Your task to perform on an android device: Open the calendar app, open the side menu, and click the "Day" option Image 0: 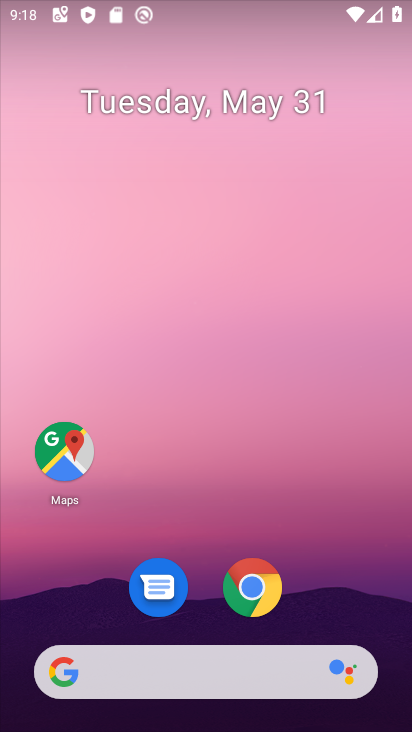
Step 0: drag from (227, 544) to (205, 101)
Your task to perform on an android device: Open the calendar app, open the side menu, and click the "Day" option Image 1: 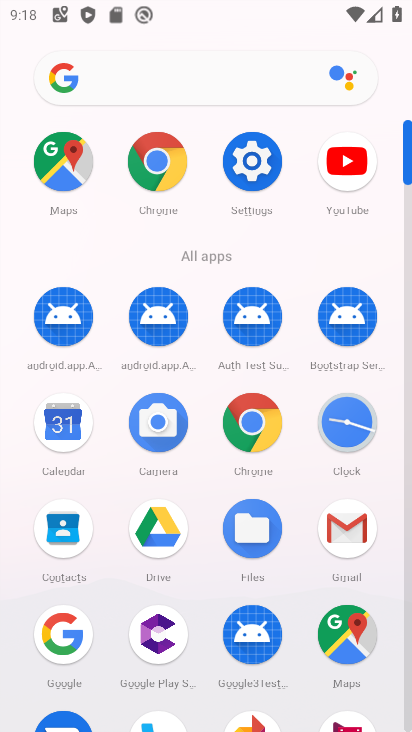
Step 1: click (63, 426)
Your task to perform on an android device: Open the calendar app, open the side menu, and click the "Day" option Image 2: 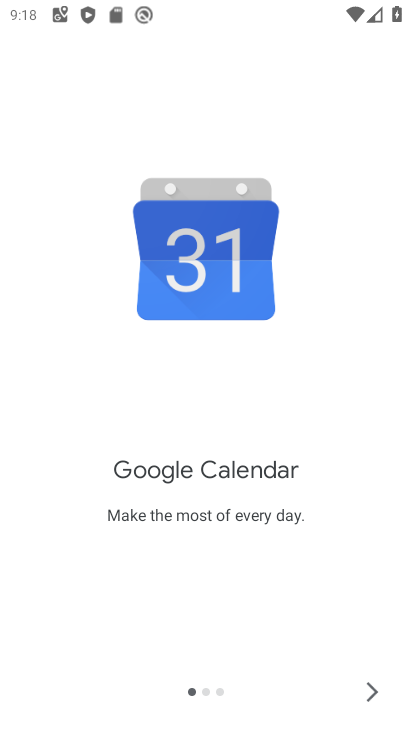
Step 2: click (371, 681)
Your task to perform on an android device: Open the calendar app, open the side menu, and click the "Day" option Image 3: 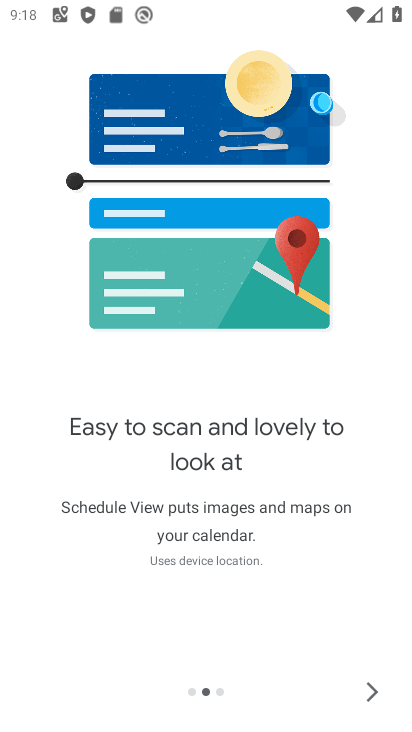
Step 3: click (371, 681)
Your task to perform on an android device: Open the calendar app, open the side menu, and click the "Day" option Image 4: 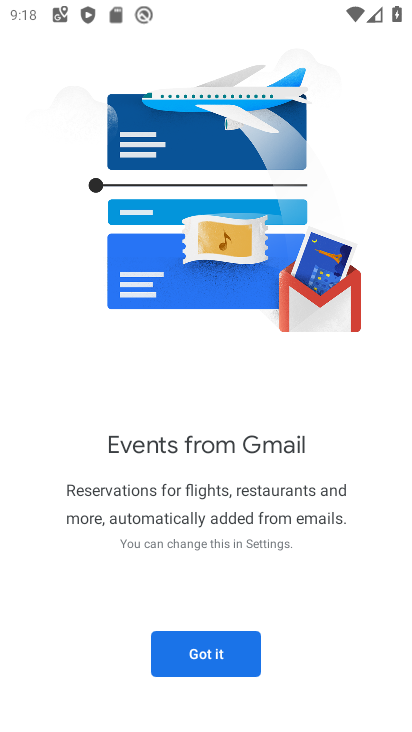
Step 4: click (228, 641)
Your task to perform on an android device: Open the calendar app, open the side menu, and click the "Day" option Image 5: 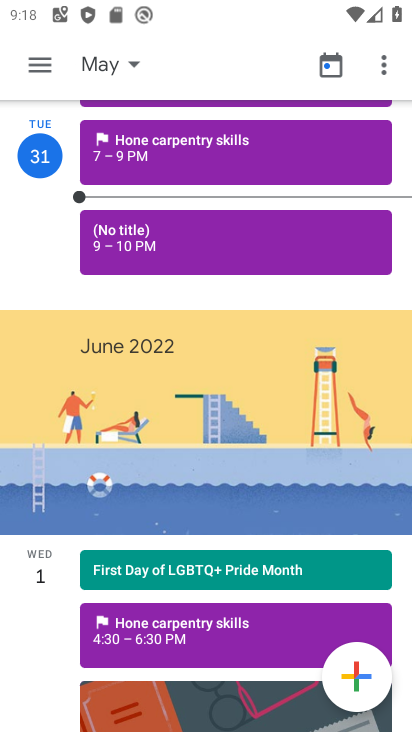
Step 5: click (38, 61)
Your task to perform on an android device: Open the calendar app, open the side menu, and click the "Day" option Image 6: 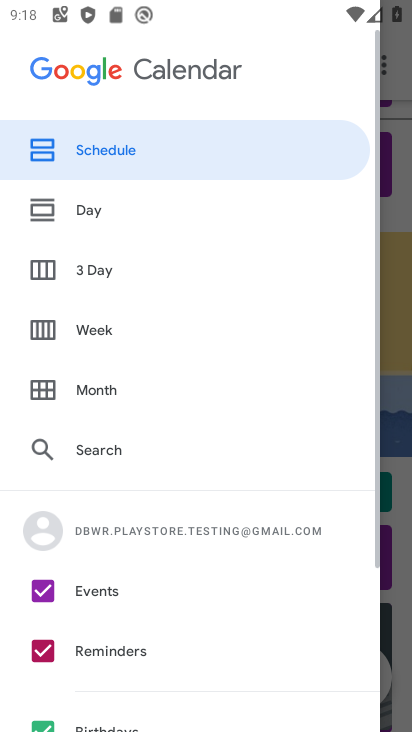
Step 6: click (66, 213)
Your task to perform on an android device: Open the calendar app, open the side menu, and click the "Day" option Image 7: 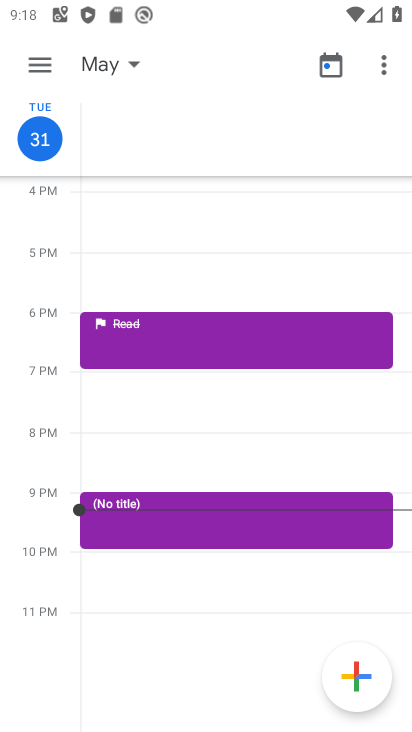
Step 7: task complete